Your task to perform on an android device: Show me productivity apps on the Play Store Image 0: 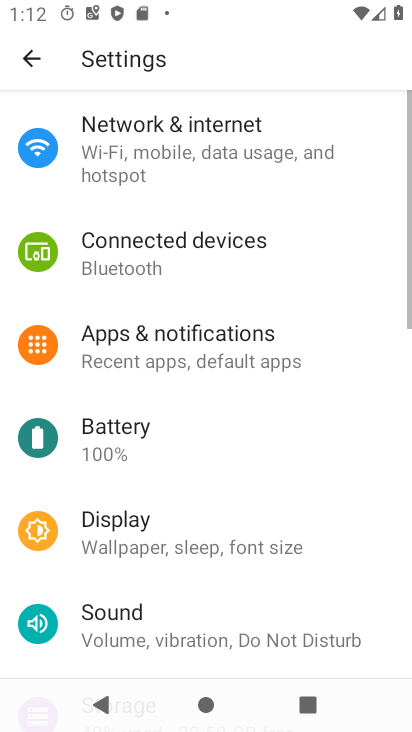
Step 0: press home button
Your task to perform on an android device: Show me productivity apps on the Play Store Image 1: 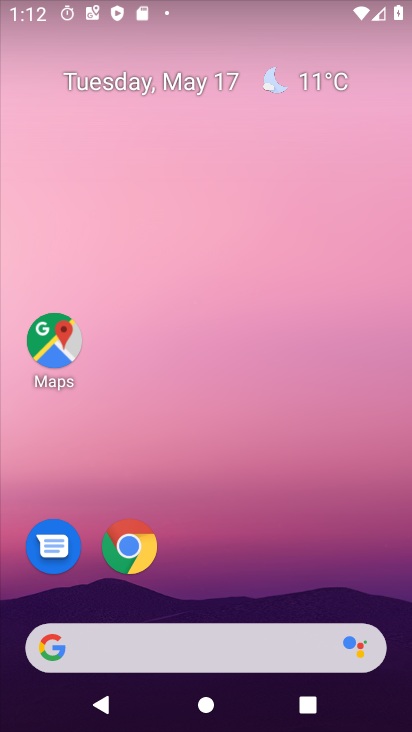
Step 1: drag from (99, 645) to (286, 159)
Your task to perform on an android device: Show me productivity apps on the Play Store Image 2: 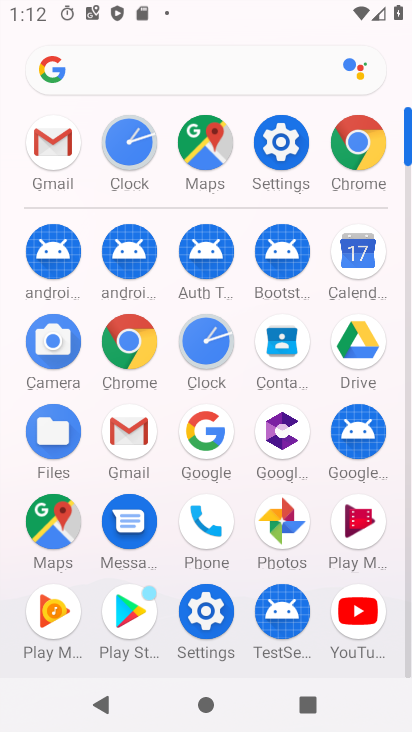
Step 2: click (125, 618)
Your task to perform on an android device: Show me productivity apps on the Play Store Image 3: 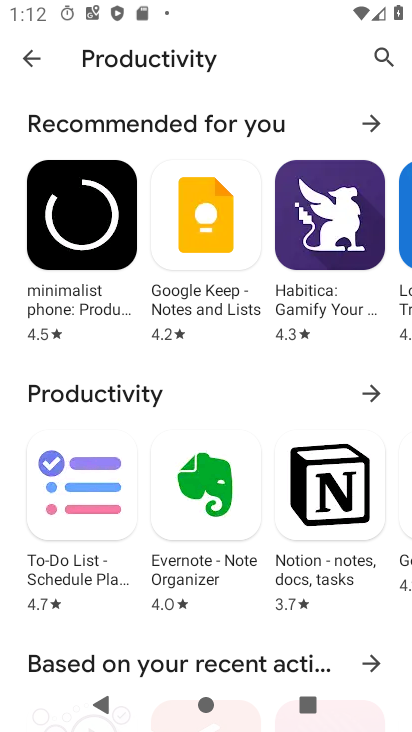
Step 3: task complete